Your task to perform on an android device: change the clock display to show seconds Image 0: 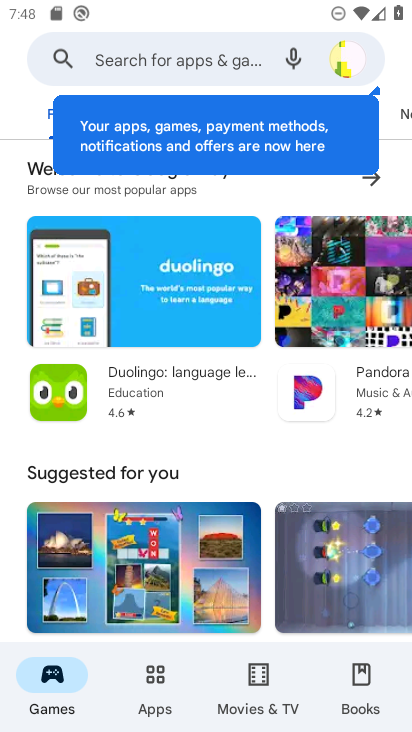
Step 0: press home button
Your task to perform on an android device: change the clock display to show seconds Image 1: 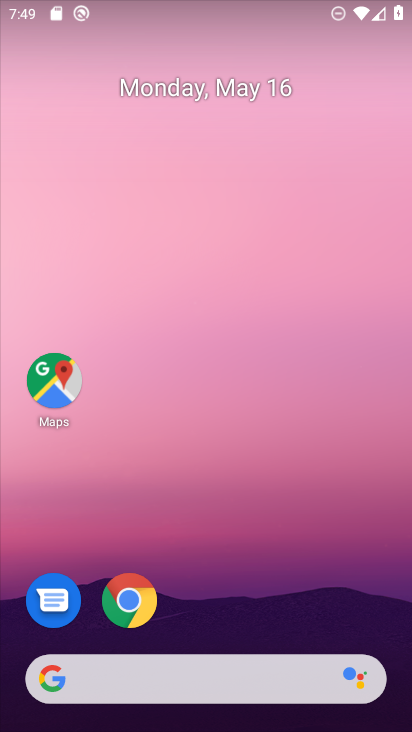
Step 1: drag from (172, 669) to (323, 263)
Your task to perform on an android device: change the clock display to show seconds Image 2: 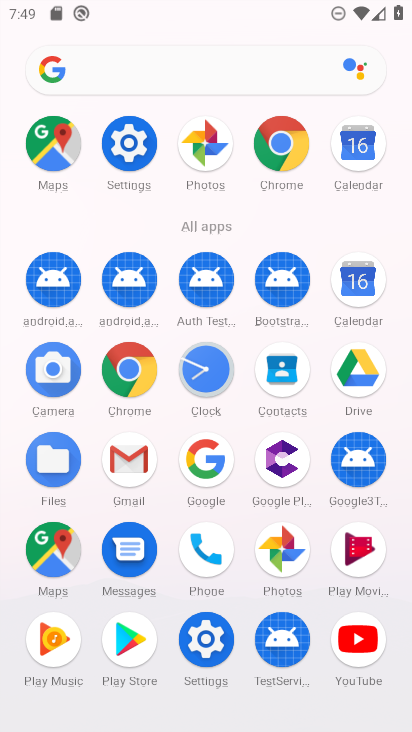
Step 2: click (210, 380)
Your task to perform on an android device: change the clock display to show seconds Image 3: 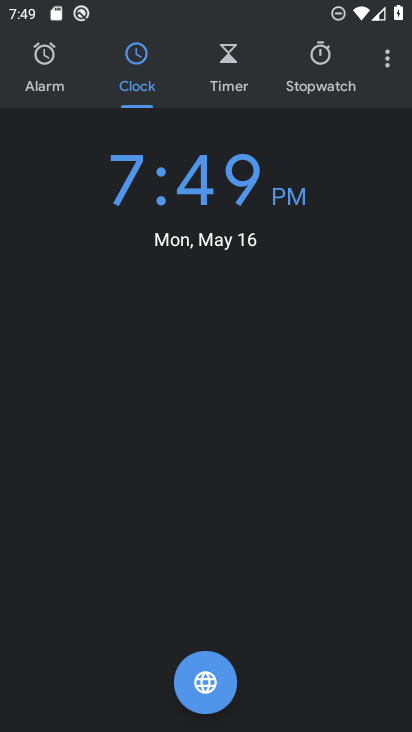
Step 3: click (387, 61)
Your task to perform on an android device: change the clock display to show seconds Image 4: 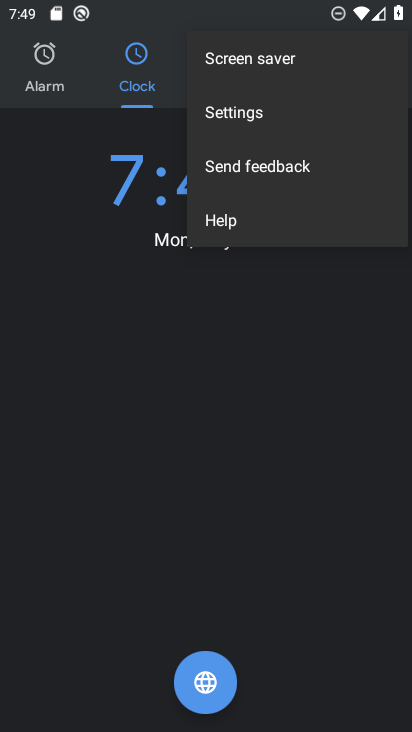
Step 4: click (253, 117)
Your task to perform on an android device: change the clock display to show seconds Image 5: 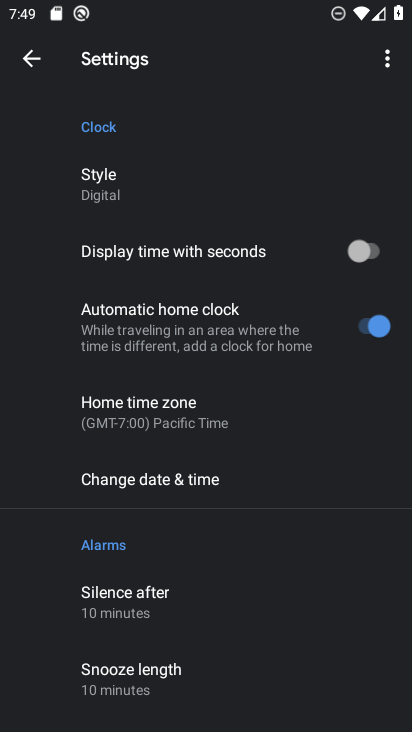
Step 5: click (363, 241)
Your task to perform on an android device: change the clock display to show seconds Image 6: 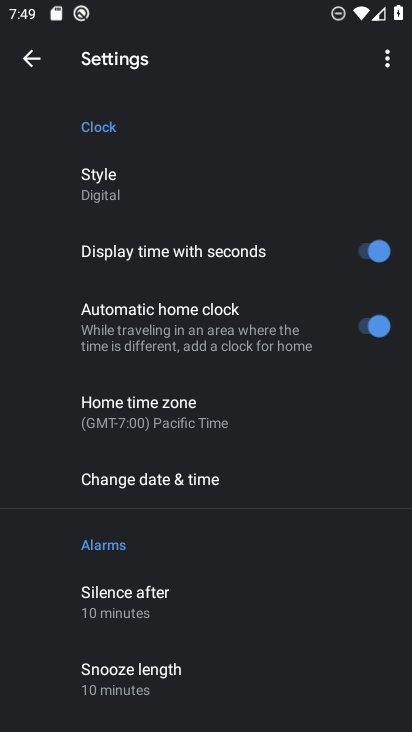
Step 6: task complete